Your task to perform on an android device: show emergency info Image 0: 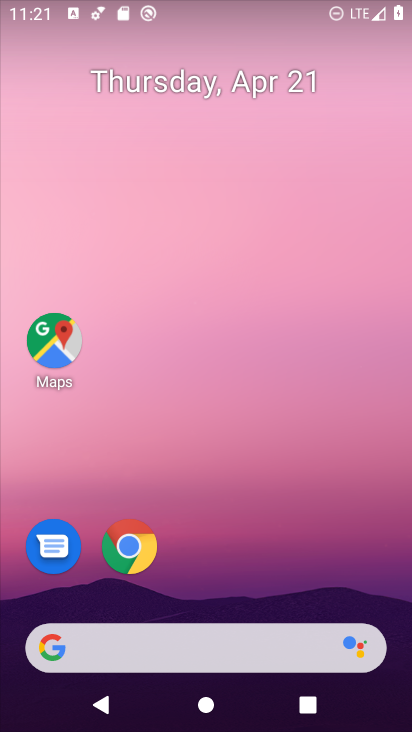
Step 0: drag from (361, 593) to (268, 171)
Your task to perform on an android device: show emergency info Image 1: 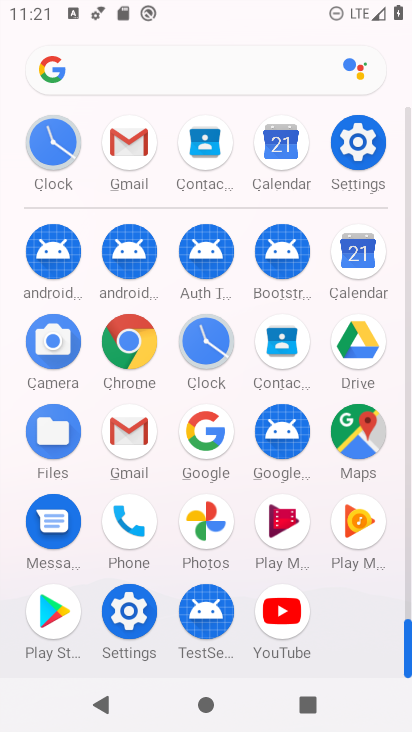
Step 1: click (128, 603)
Your task to perform on an android device: show emergency info Image 2: 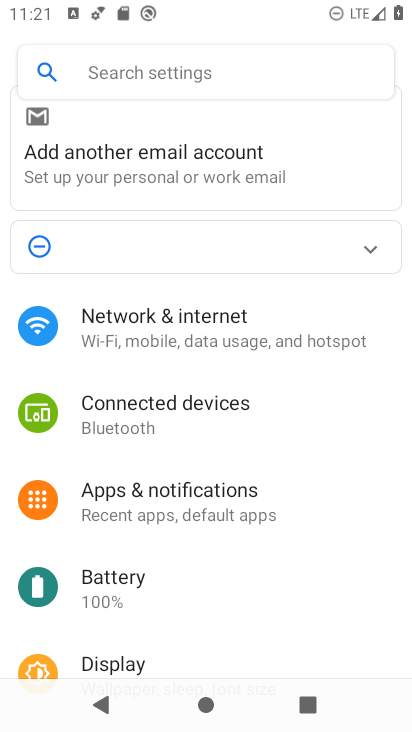
Step 2: drag from (253, 624) to (199, 305)
Your task to perform on an android device: show emergency info Image 3: 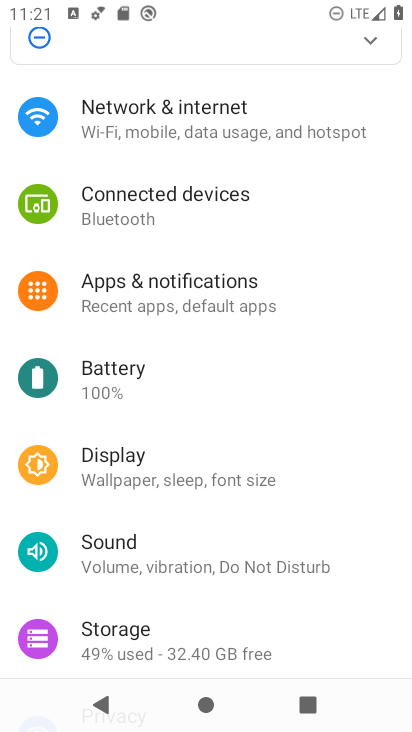
Step 3: drag from (280, 478) to (227, 186)
Your task to perform on an android device: show emergency info Image 4: 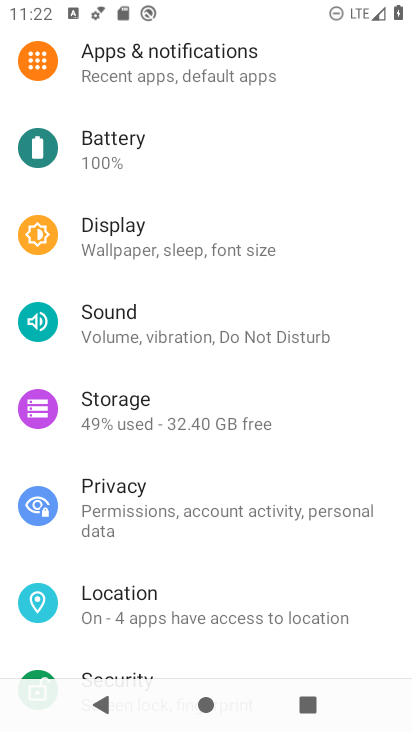
Step 4: drag from (244, 564) to (210, 359)
Your task to perform on an android device: show emergency info Image 5: 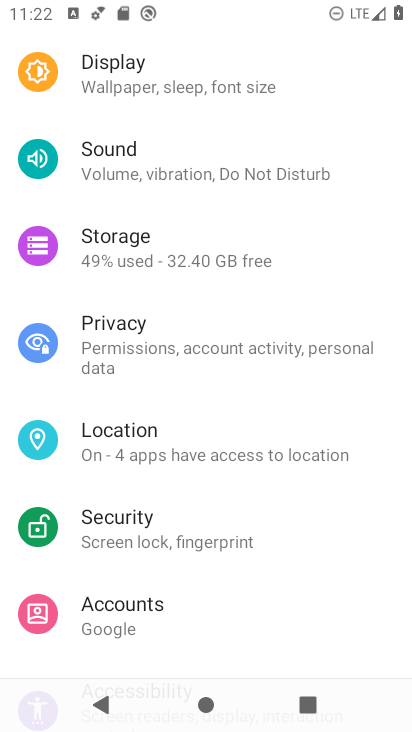
Step 5: drag from (212, 457) to (185, 272)
Your task to perform on an android device: show emergency info Image 6: 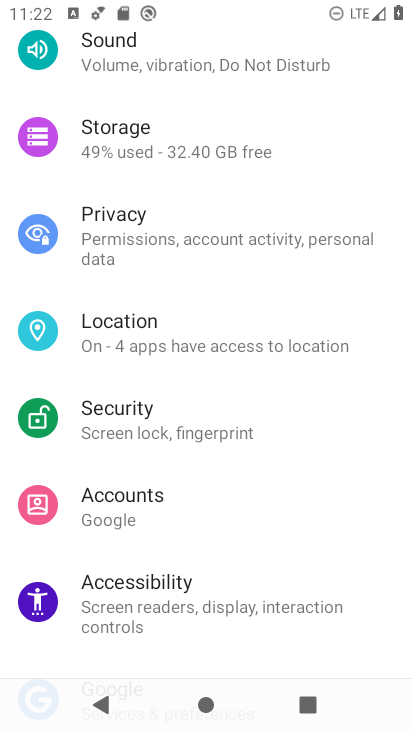
Step 6: drag from (176, 500) to (165, 230)
Your task to perform on an android device: show emergency info Image 7: 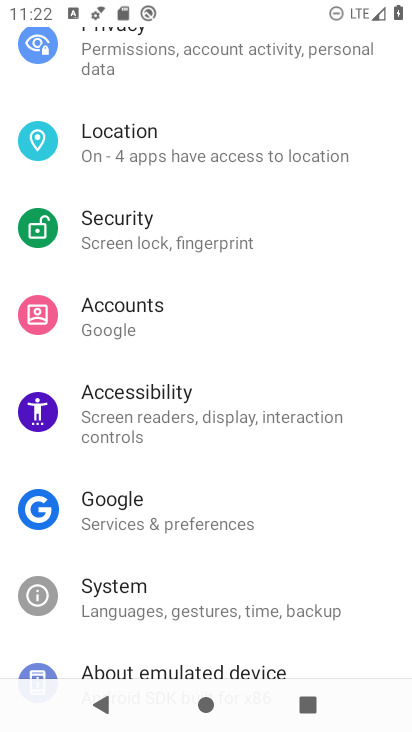
Step 7: drag from (161, 570) to (131, 390)
Your task to perform on an android device: show emergency info Image 8: 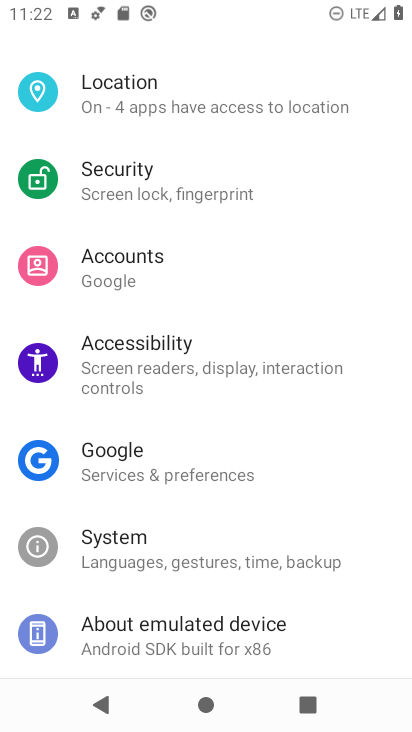
Step 8: click (143, 616)
Your task to perform on an android device: show emergency info Image 9: 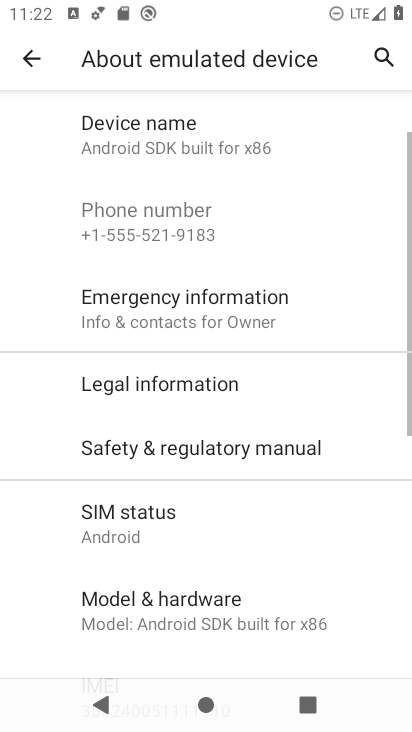
Step 9: click (162, 307)
Your task to perform on an android device: show emergency info Image 10: 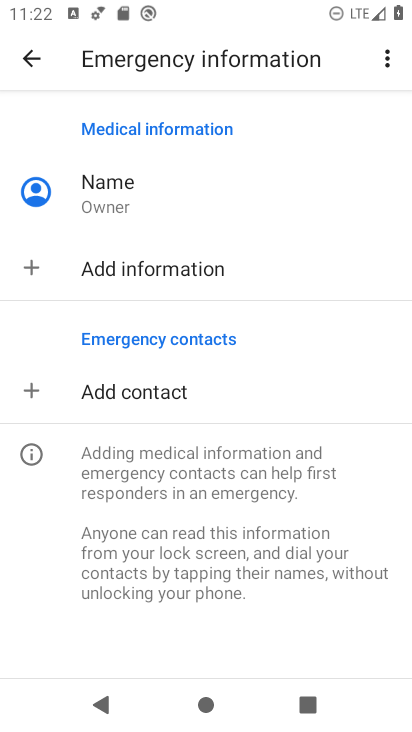
Step 10: task complete